Your task to perform on an android device: Go to accessibility settings Image 0: 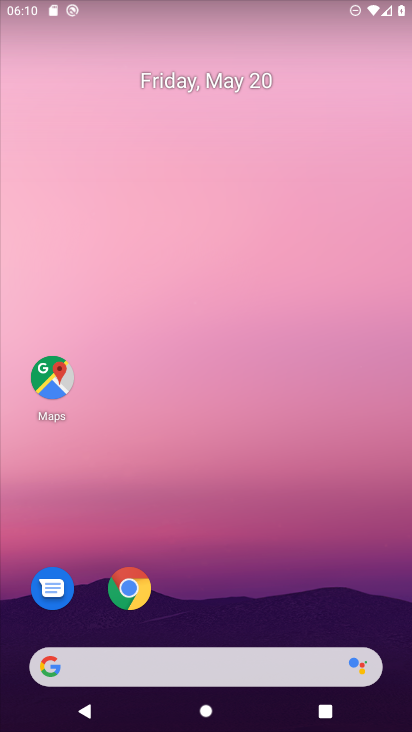
Step 0: drag from (207, 586) to (239, 3)
Your task to perform on an android device: Go to accessibility settings Image 1: 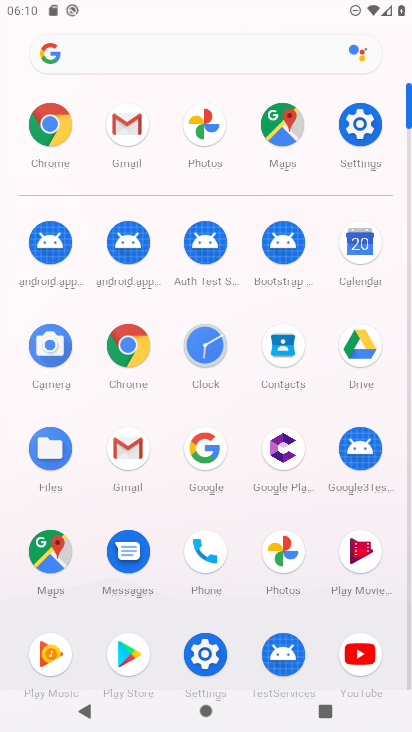
Step 1: click (359, 169)
Your task to perform on an android device: Go to accessibility settings Image 2: 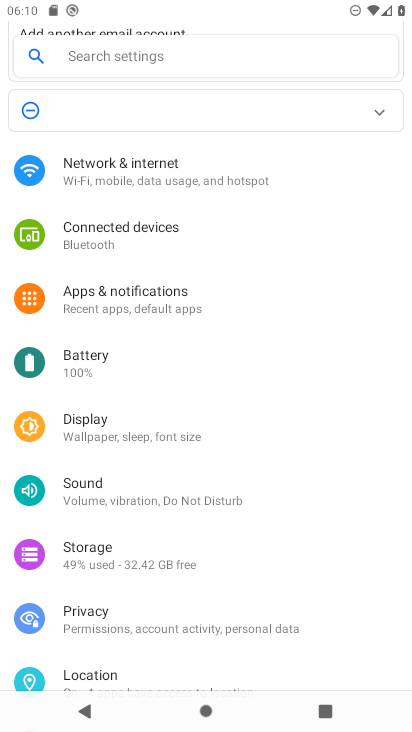
Step 2: drag from (136, 624) to (162, 0)
Your task to perform on an android device: Go to accessibility settings Image 3: 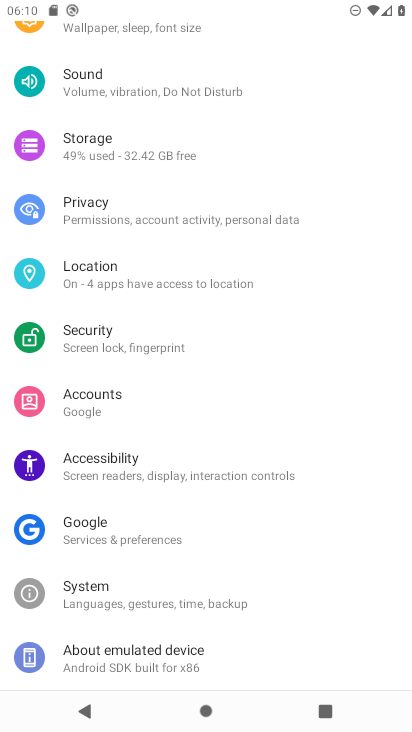
Step 3: click (125, 468)
Your task to perform on an android device: Go to accessibility settings Image 4: 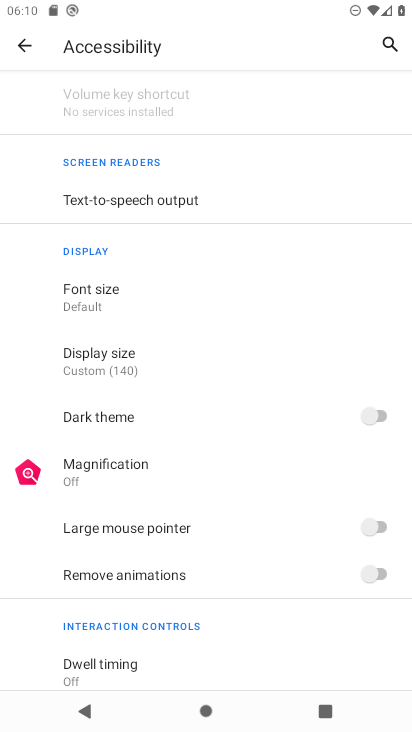
Step 4: task complete